Your task to perform on an android device: turn on data saver in the chrome app Image 0: 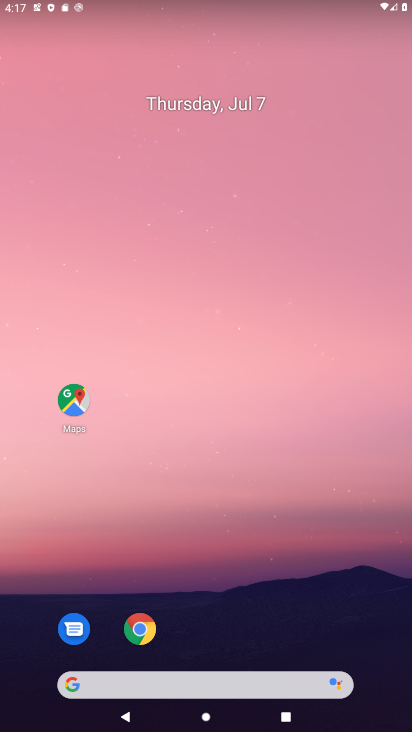
Step 0: drag from (307, 614) to (303, 439)
Your task to perform on an android device: turn on data saver in the chrome app Image 1: 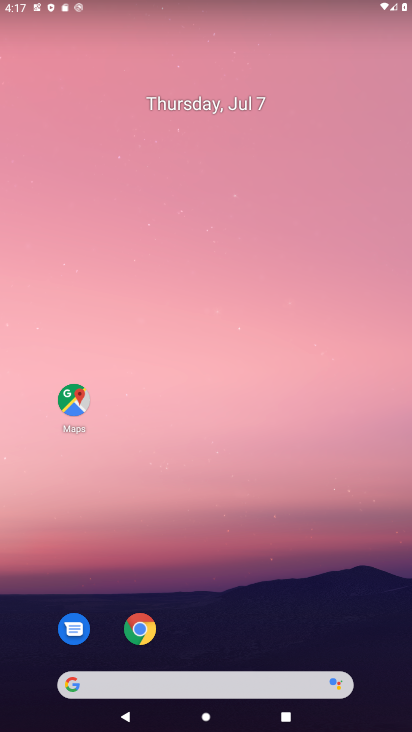
Step 1: drag from (188, 621) to (214, 362)
Your task to perform on an android device: turn on data saver in the chrome app Image 2: 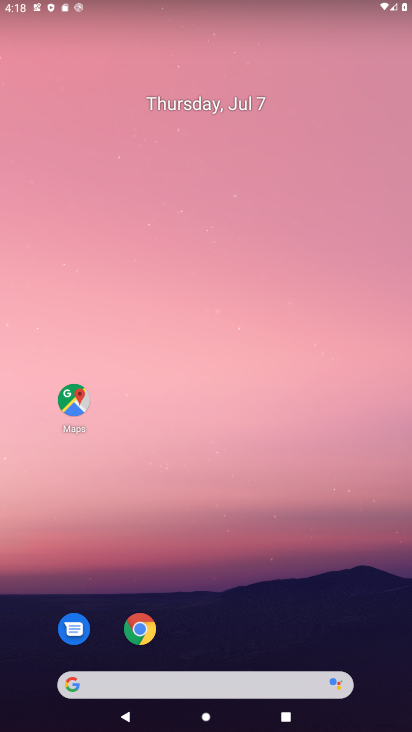
Step 2: drag from (226, 635) to (243, 193)
Your task to perform on an android device: turn on data saver in the chrome app Image 3: 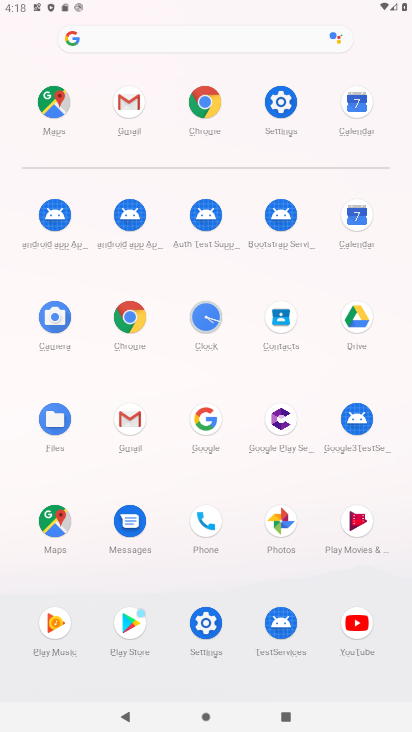
Step 3: click (129, 105)
Your task to perform on an android device: turn on data saver in the chrome app Image 4: 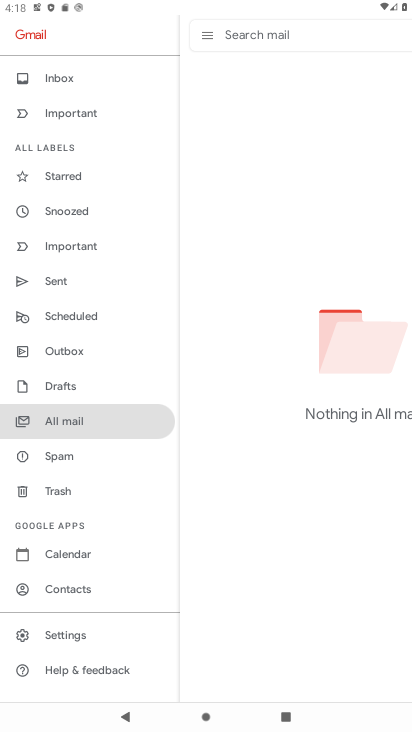
Step 4: press home button
Your task to perform on an android device: turn on data saver in the chrome app Image 5: 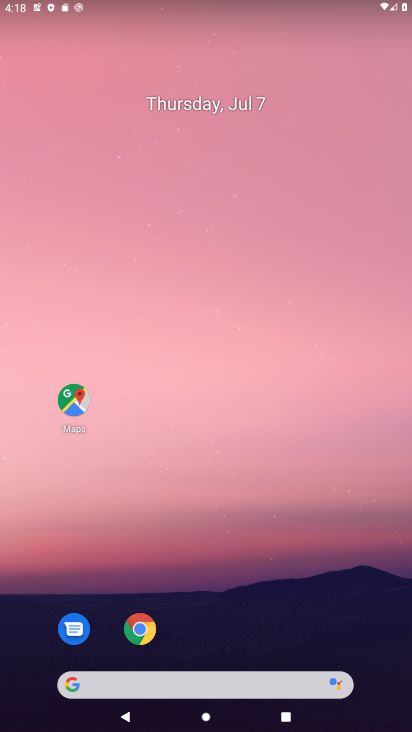
Step 5: drag from (258, 637) to (293, 372)
Your task to perform on an android device: turn on data saver in the chrome app Image 6: 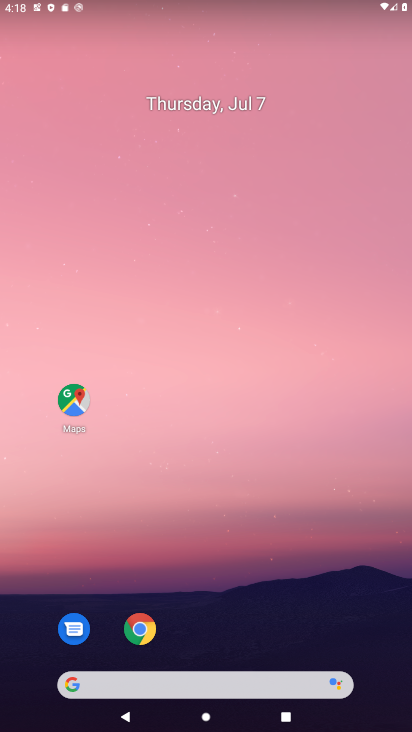
Step 6: click (150, 626)
Your task to perform on an android device: turn on data saver in the chrome app Image 7: 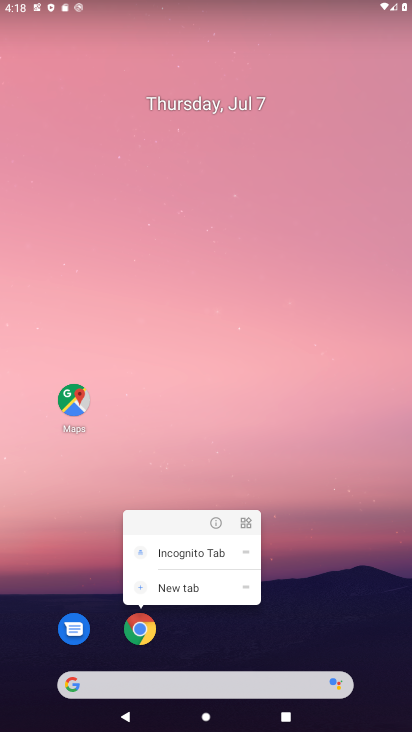
Step 7: click (150, 626)
Your task to perform on an android device: turn on data saver in the chrome app Image 8: 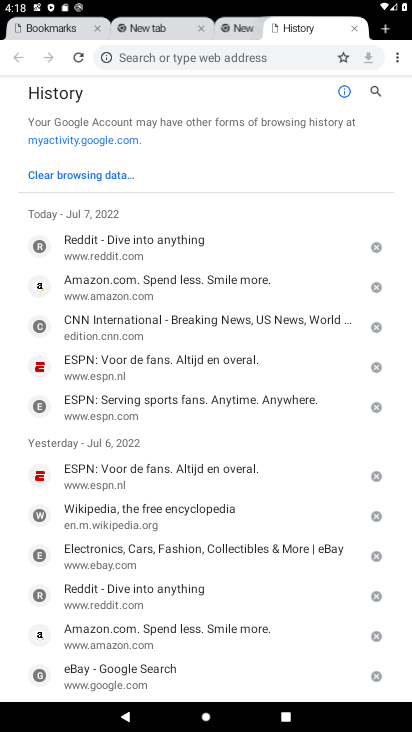
Step 8: click (402, 60)
Your task to perform on an android device: turn on data saver in the chrome app Image 9: 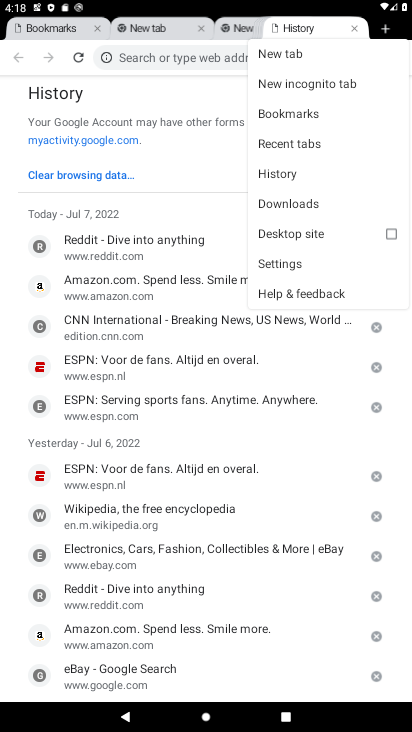
Step 9: click (286, 259)
Your task to perform on an android device: turn on data saver in the chrome app Image 10: 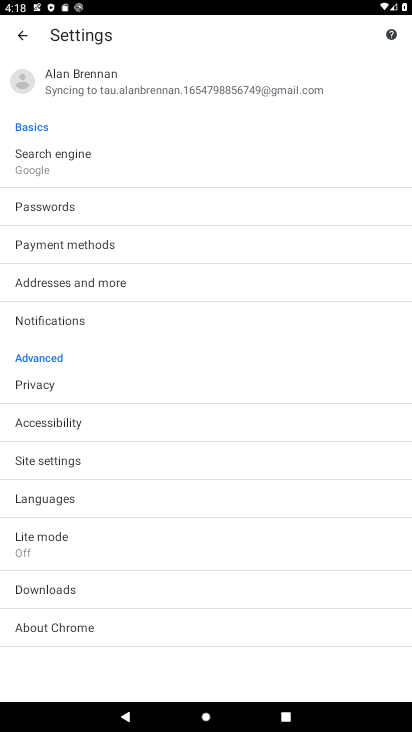
Step 10: click (74, 539)
Your task to perform on an android device: turn on data saver in the chrome app Image 11: 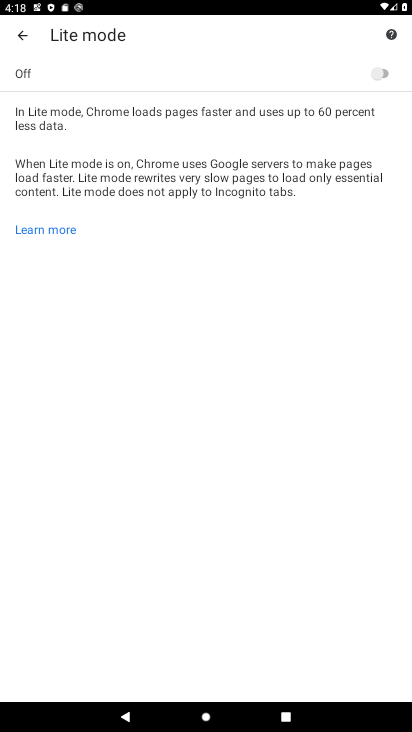
Step 11: click (377, 65)
Your task to perform on an android device: turn on data saver in the chrome app Image 12: 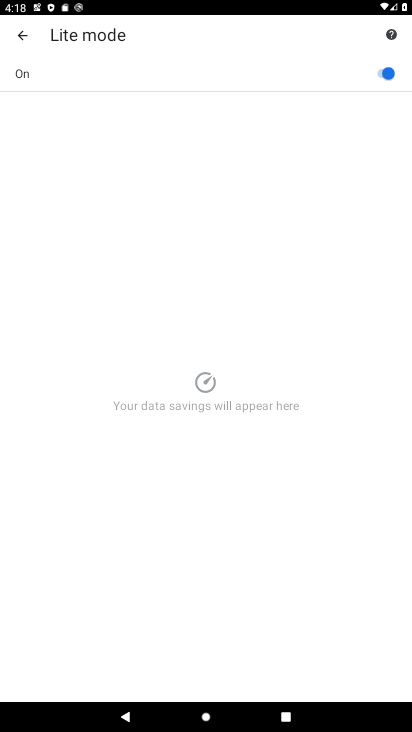
Step 12: task complete